Your task to perform on an android device: Look up the best rated video games on bestbuy.com Image 0: 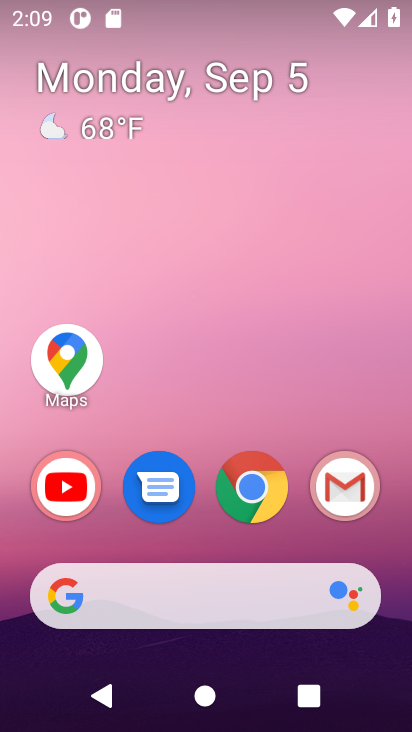
Step 0: click (260, 481)
Your task to perform on an android device: Look up the best rated video games on bestbuy.com Image 1: 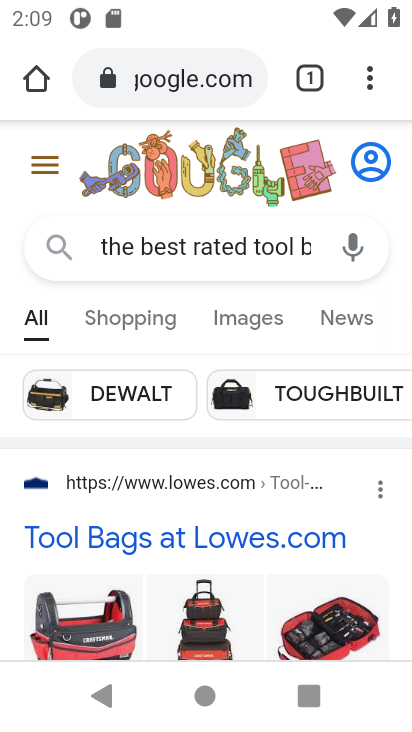
Step 1: click (179, 80)
Your task to perform on an android device: Look up the best rated video games on bestbuy.com Image 2: 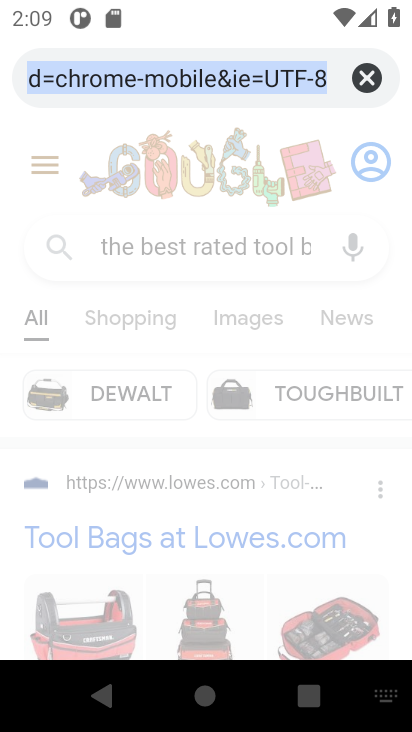
Step 2: click (363, 82)
Your task to perform on an android device: Look up the best rated video games on bestbuy.com Image 3: 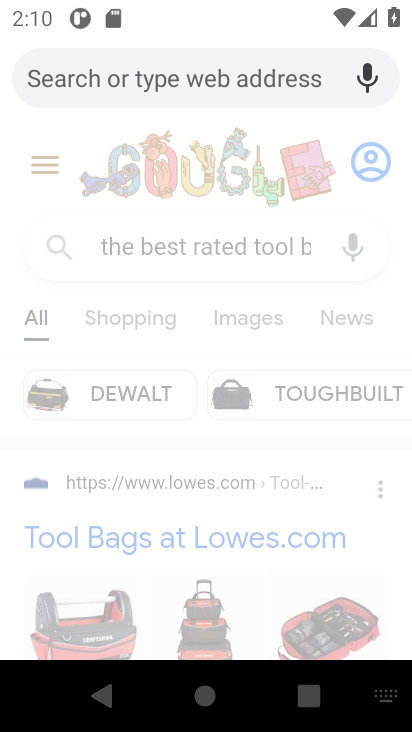
Step 3: type "the best rated video games on bestbuy.com"
Your task to perform on an android device: Look up the best rated video games on bestbuy.com Image 4: 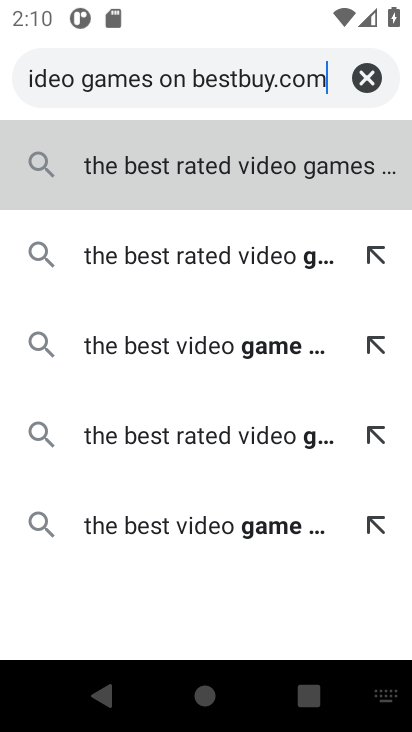
Step 4: click (186, 178)
Your task to perform on an android device: Look up the best rated video games on bestbuy.com Image 5: 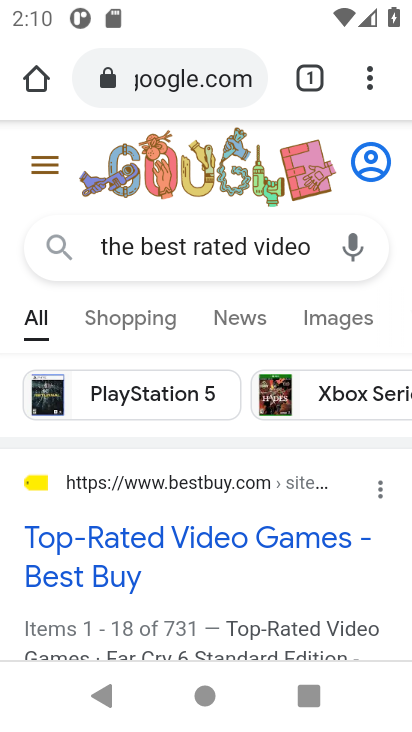
Step 5: task complete